Your task to perform on an android device: Open battery settings Image 0: 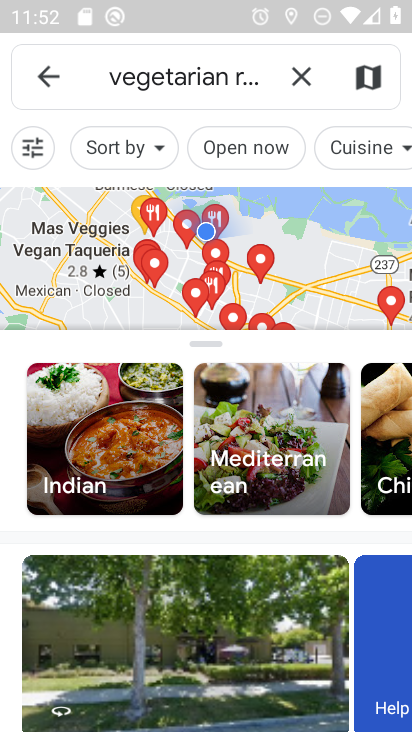
Step 0: press home button
Your task to perform on an android device: Open battery settings Image 1: 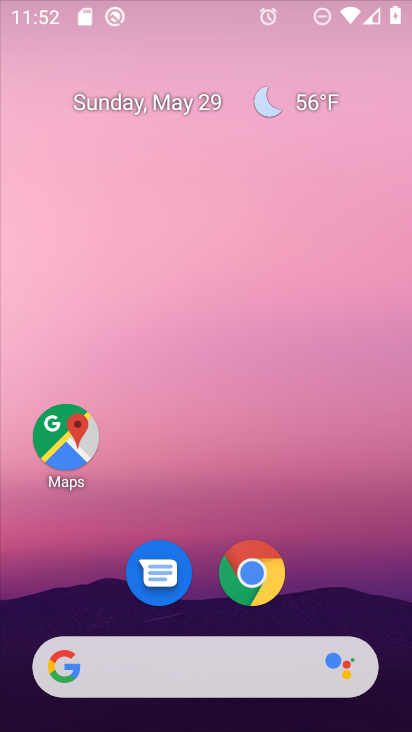
Step 1: drag from (273, 721) to (298, 246)
Your task to perform on an android device: Open battery settings Image 2: 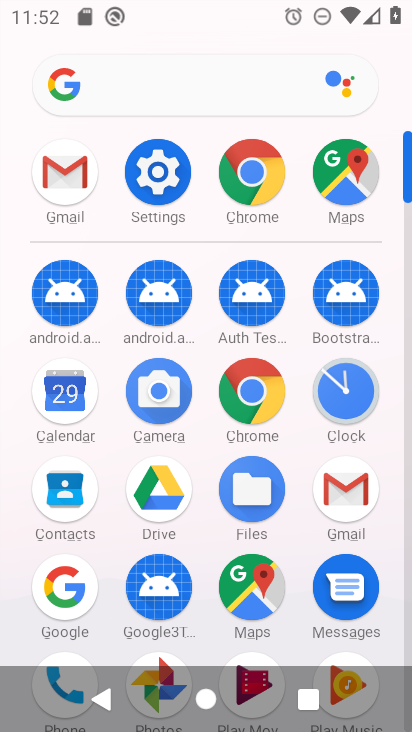
Step 2: click (155, 181)
Your task to perform on an android device: Open battery settings Image 3: 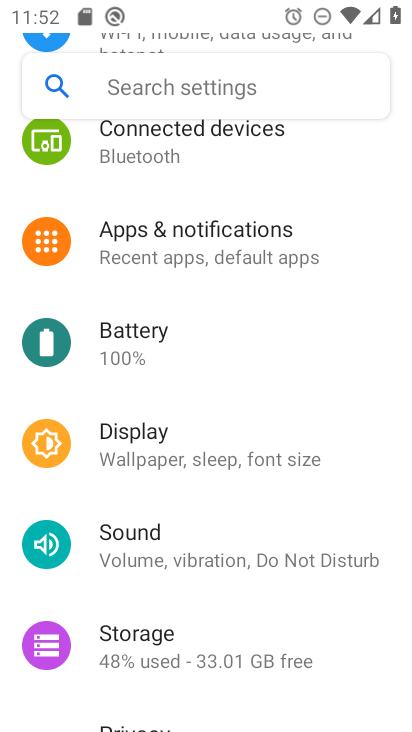
Step 3: click (167, 335)
Your task to perform on an android device: Open battery settings Image 4: 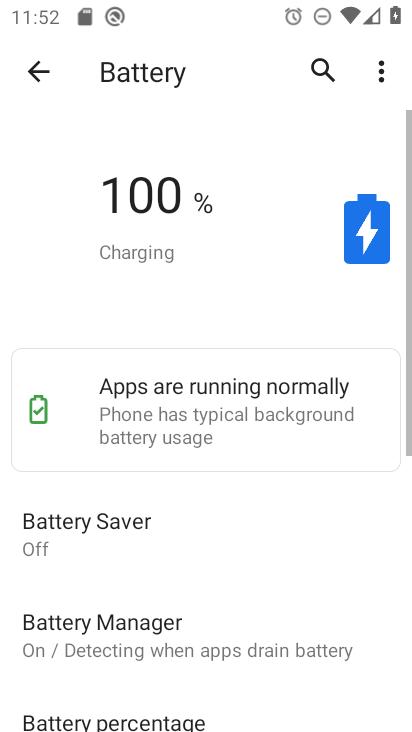
Step 4: task complete